Your task to perform on an android device: turn on notifications settings in the gmail app Image 0: 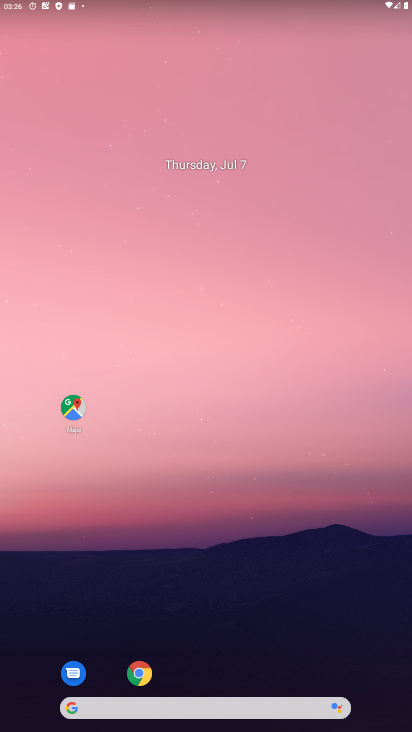
Step 0: drag from (183, 668) to (224, 216)
Your task to perform on an android device: turn on notifications settings in the gmail app Image 1: 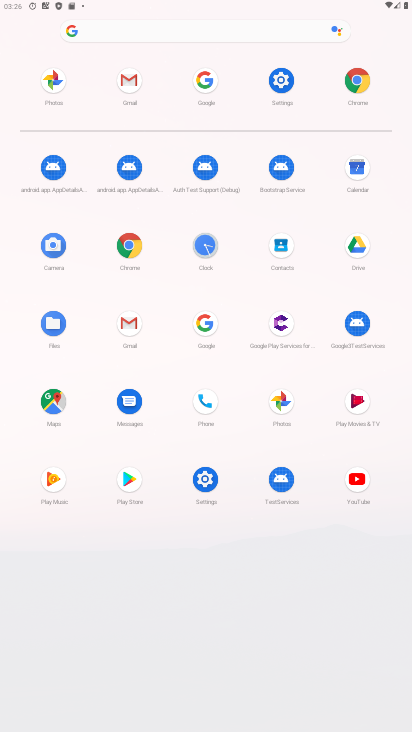
Step 1: click (134, 78)
Your task to perform on an android device: turn on notifications settings in the gmail app Image 2: 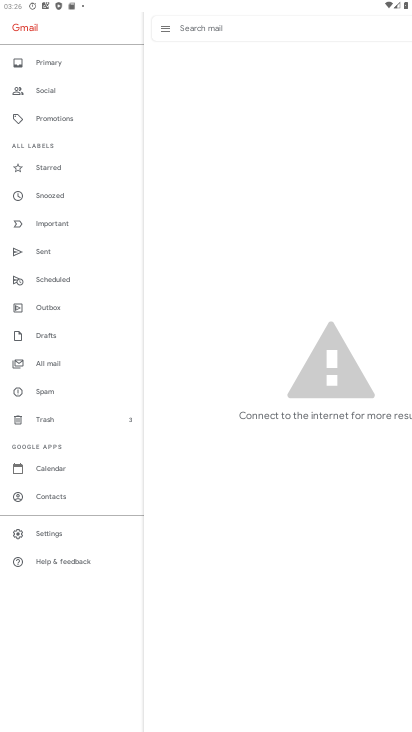
Step 2: click (51, 530)
Your task to perform on an android device: turn on notifications settings in the gmail app Image 3: 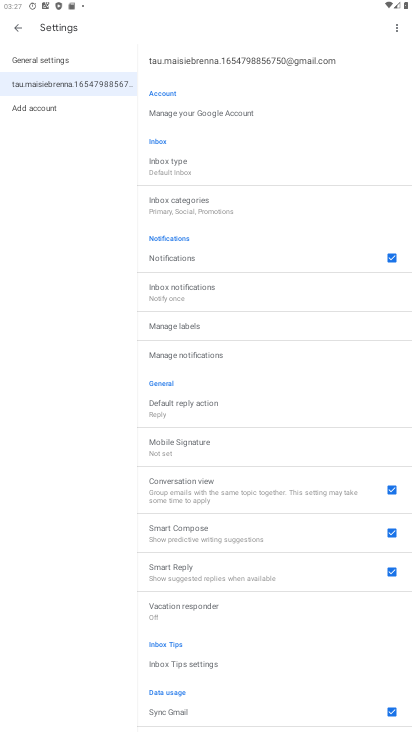
Step 3: click (243, 350)
Your task to perform on an android device: turn on notifications settings in the gmail app Image 4: 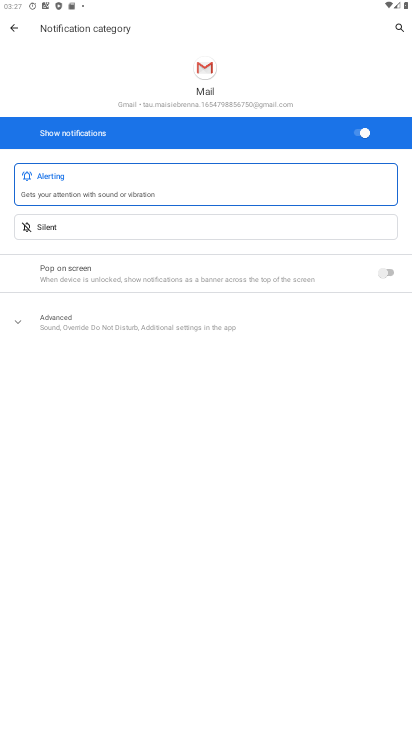
Step 4: task complete